Your task to perform on an android device: open chrome and create a bookmark for the current page Image 0: 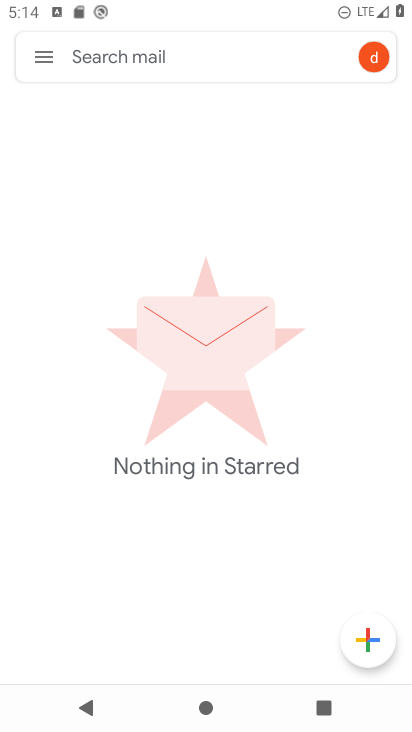
Step 0: press home button
Your task to perform on an android device: open chrome and create a bookmark for the current page Image 1: 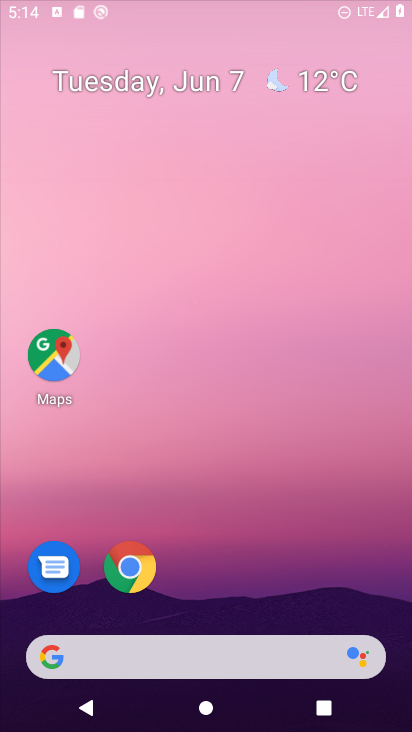
Step 1: drag from (286, 666) to (302, 95)
Your task to perform on an android device: open chrome and create a bookmark for the current page Image 2: 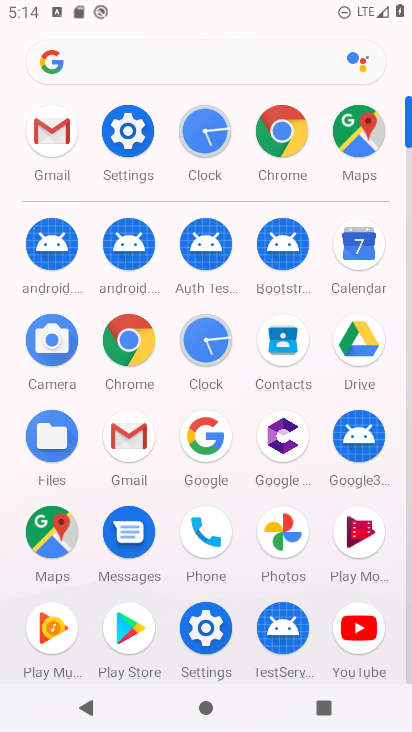
Step 2: click (135, 328)
Your task to perform on an android device: open chrome and create a bookmark for the current page Image 3: 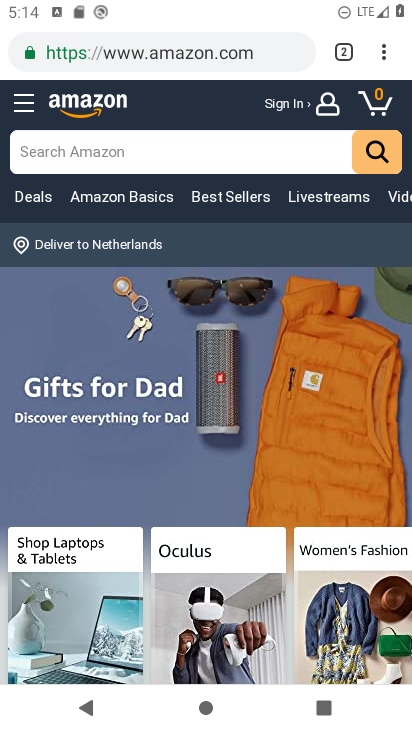
Step 3: click (387, 49)
Your task to perform on an android device: open chrome and create a bookmark for the current page Image 4: 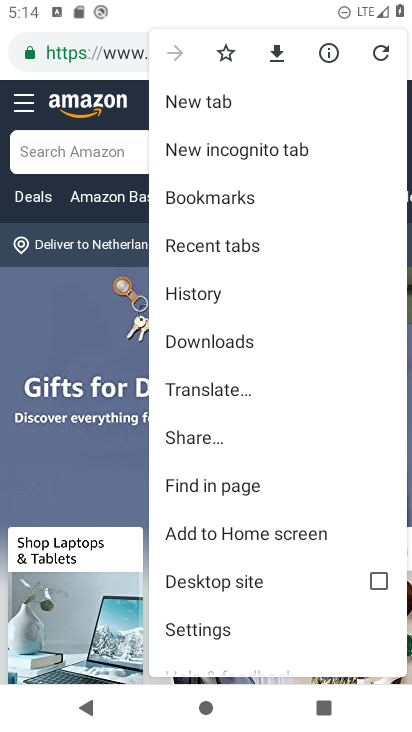
Step 4: click (236, 194)
Your task to perform on an android device: open chrome and create a bookmark for the current page Image 5: 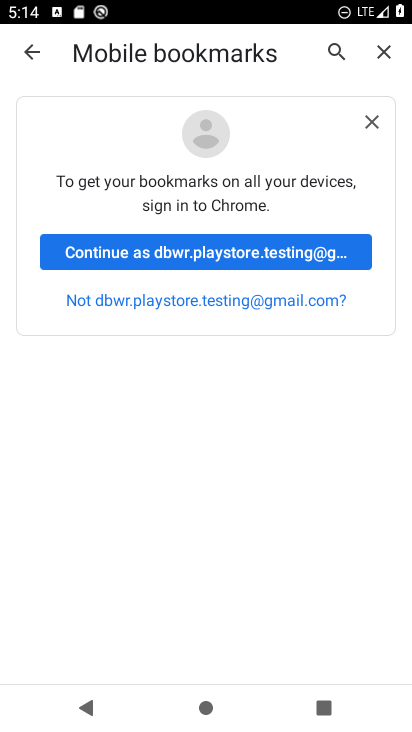
Step 5: task complete